Your task to perform on an android device: toggle airplane mode Image 0: 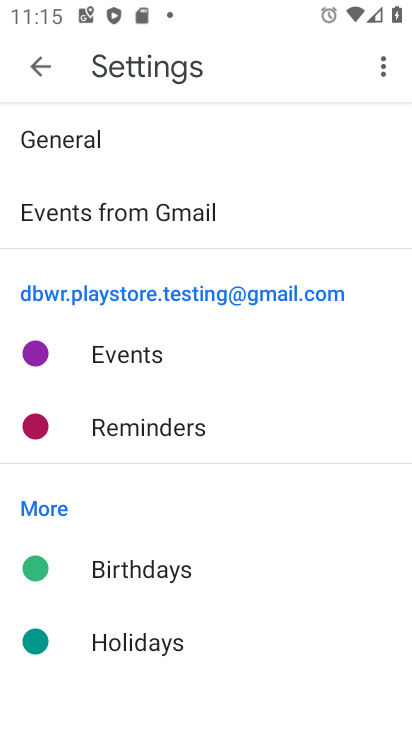
Step 0: press home button
Your task to perform on an android device: toggle airplane mode Image 1: 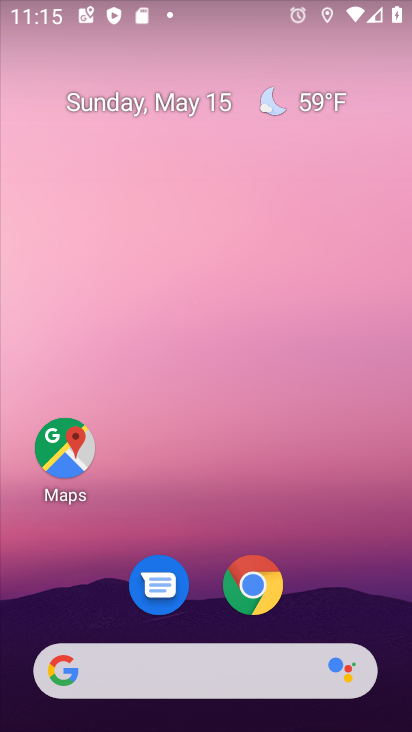
Step 1: drag from (212, 497) to (202, 49)
Your task to perform on an android device: toggle airplane mode Image 2: 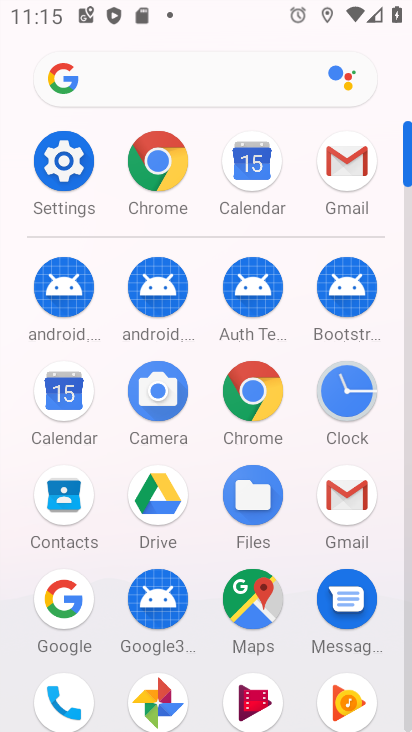
Step 2: click (78, 176)
Your task to perform on an android device: toggle airplane mode Image 3: 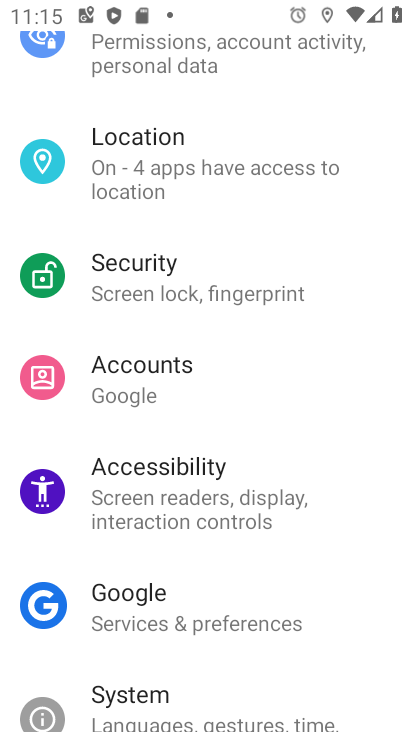
Step 3: drag from (225, 201) to (248, 702)
Your task to perform on an android device: toggle airplane mode Image 4: 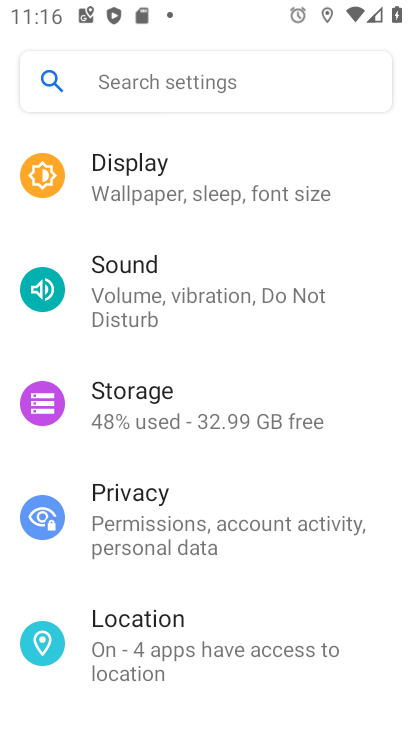
Step 4: drag from (180, 250) to (187, 635)
Your task to perform on an android device: toggle airplane mode Image 5: 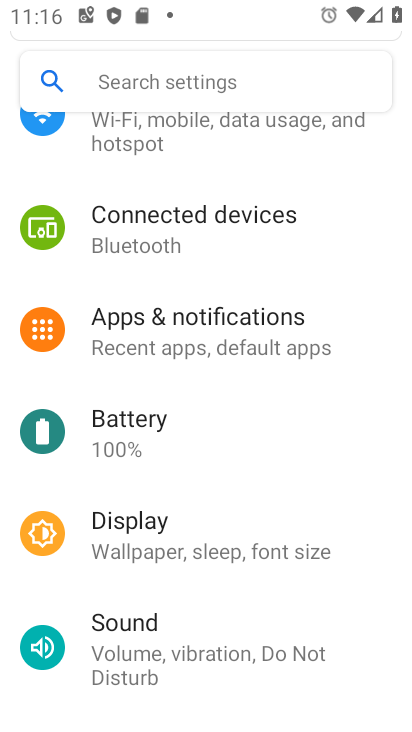
Step 5: drag from (174, 257) to (184, 616)
Your task to perform on an android device: toggle airplane mode Image 6: 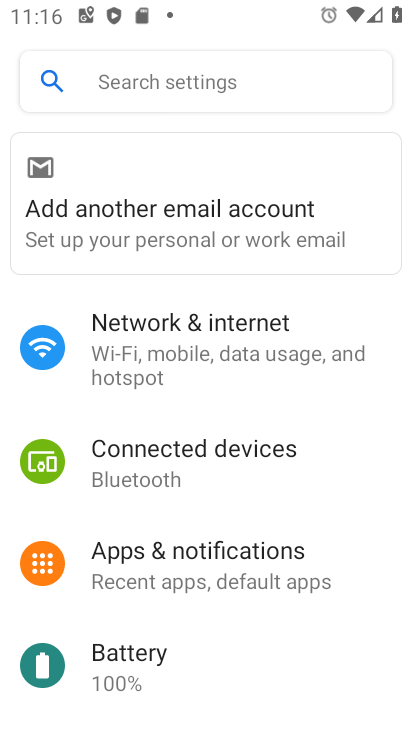
Step 6: click (175, 350)
Your task to perform on an android device: toggle airplane mode Image 7: 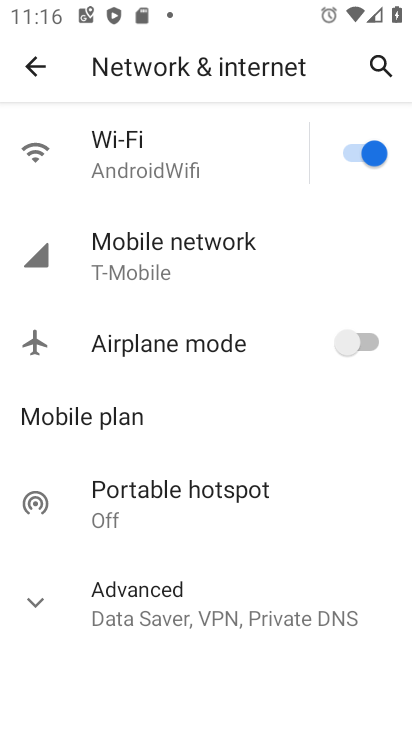
Step 7: click (353, 343)
Your task to perform on an android device: toggle airplane mode Image 8: 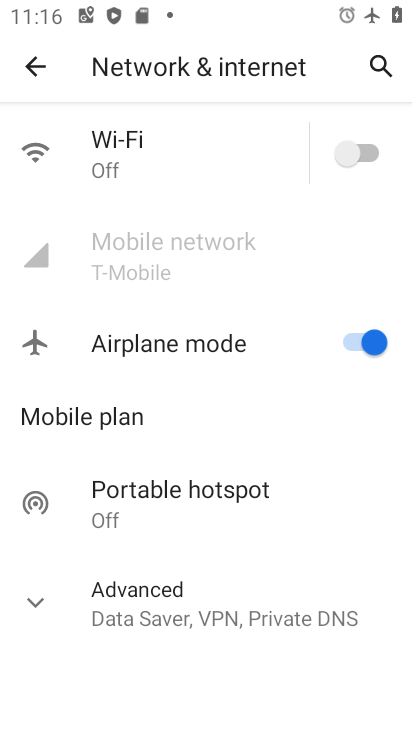
Step 8: task complete